Your task to perform on an android device: What's the weather going to be this weekend? Image 0: 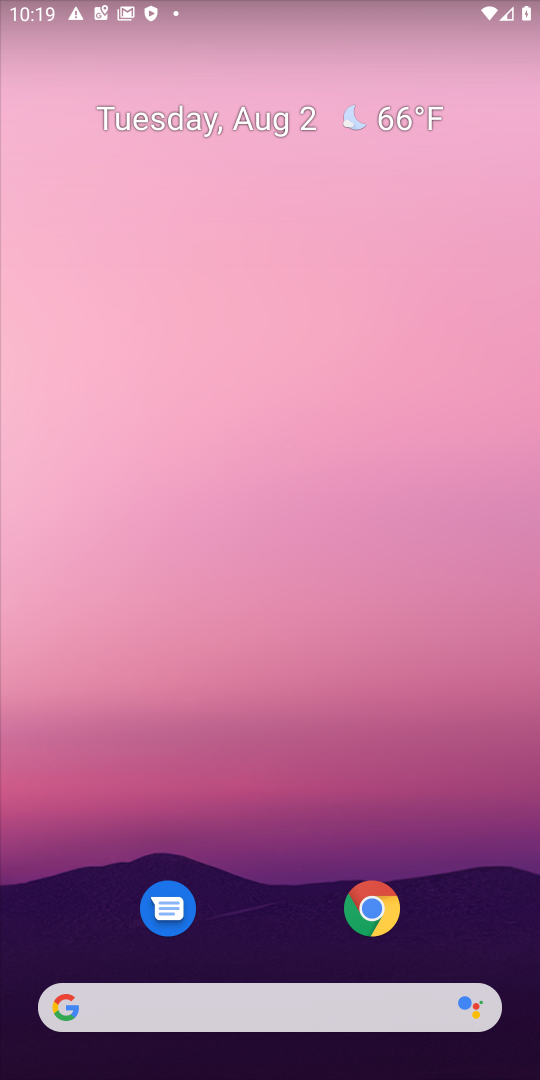
Step 0: click (320, 998)
Your task to perform on an android device: What's the weather going to be this weekend? Image 1: 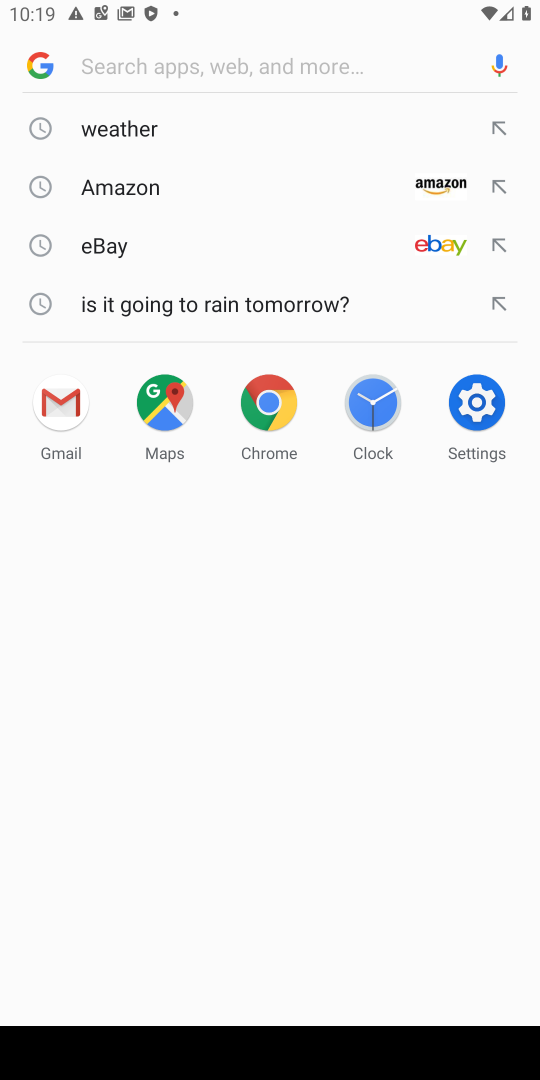
Step 1: click (68, 118)
Your task to perform on an android device: What's the weather going to be this weekend? Image 2: 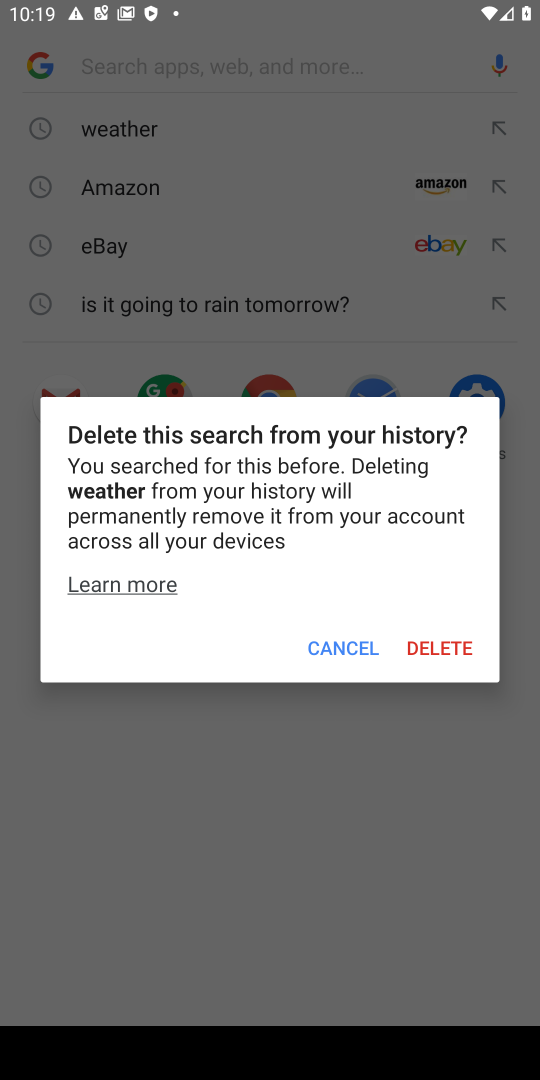
Step 2: click (419, 641)
Your task to perform on an android device: What's the weather going to be this weekend? Image 3: 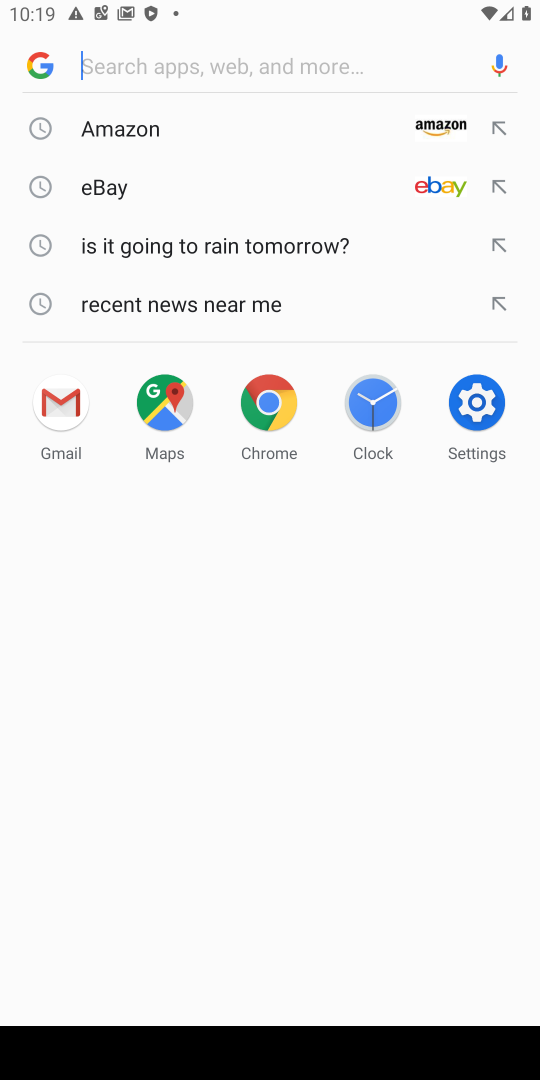
Step 3: click (150, 54)
Your task to perform on an android device: What's the weather going to be this weekend? Image 4: 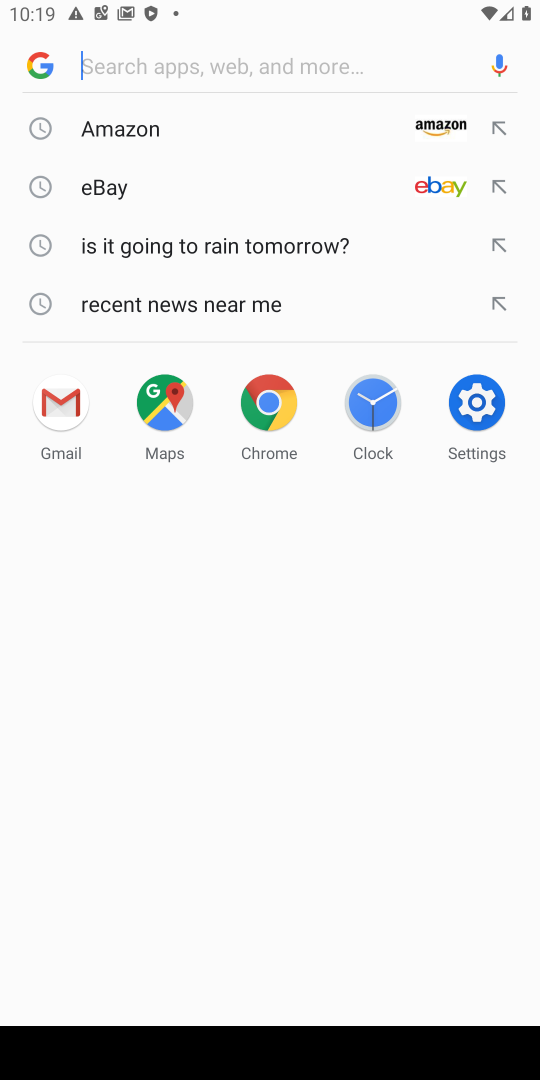
Step 4: type " weather"
Your task to perform on an android device: What's the weather going to be this weekend? Image 5: 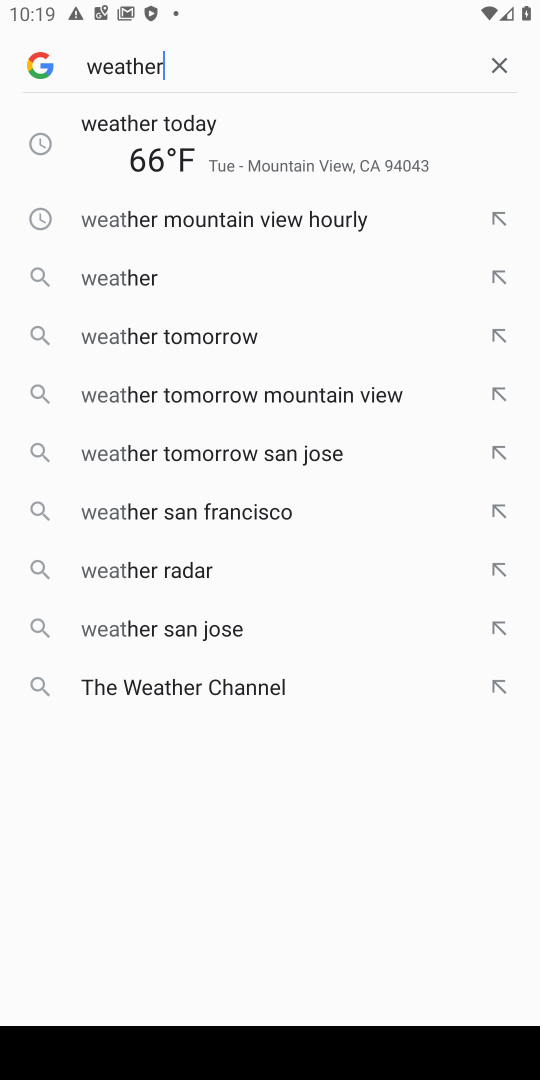
Step 5: type ""
Your task to perform on an android device: What's the weather going to be this weekend? Image 6: 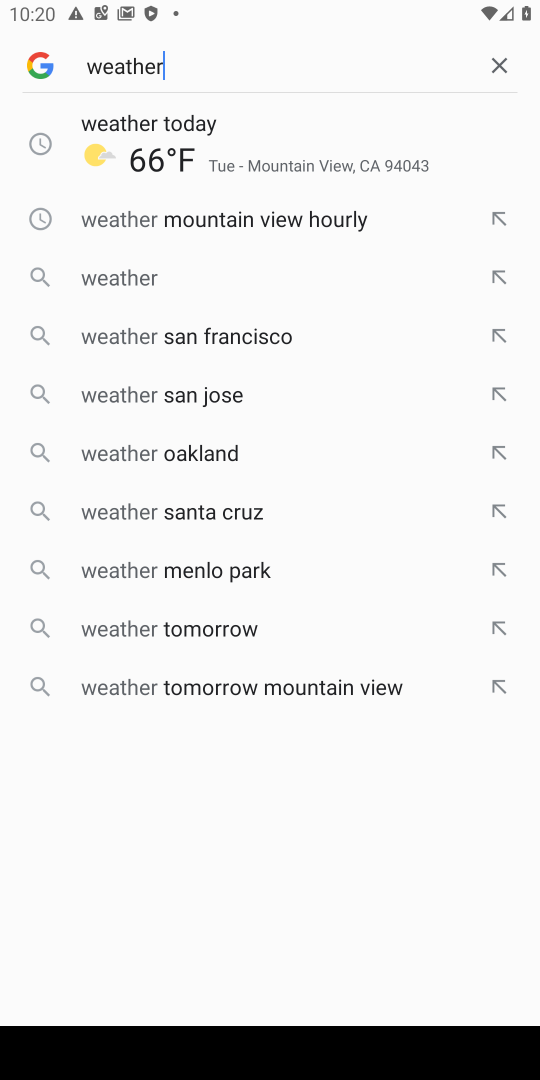
Step 6: click (209, 124)
Your task to perform on an android device: What's the weather going to be this weekend? Image 7: 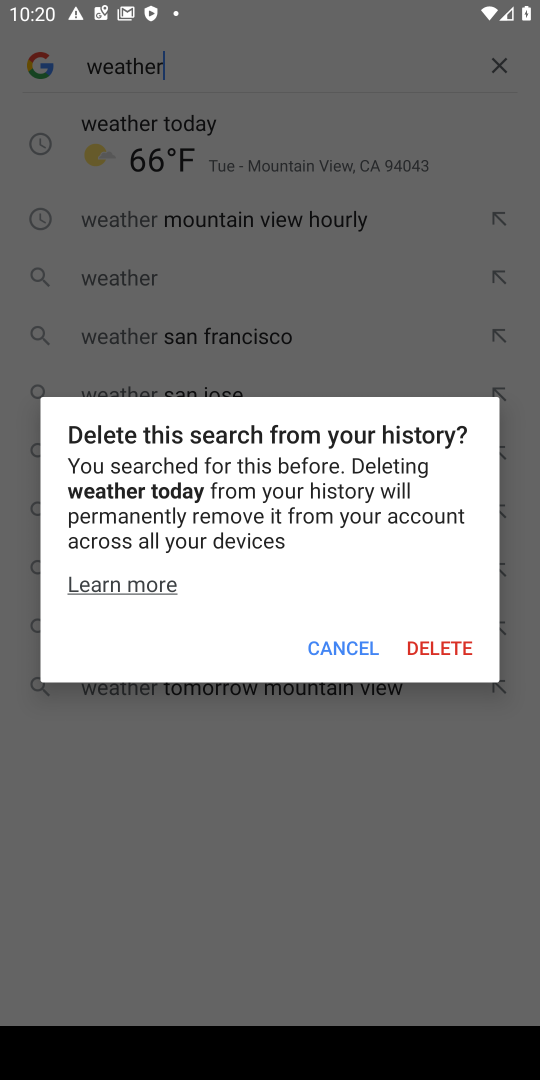
Step 7: click (336, 645)
Your task to perform on an android device: What's the weather going to be this weekend? Image 8: 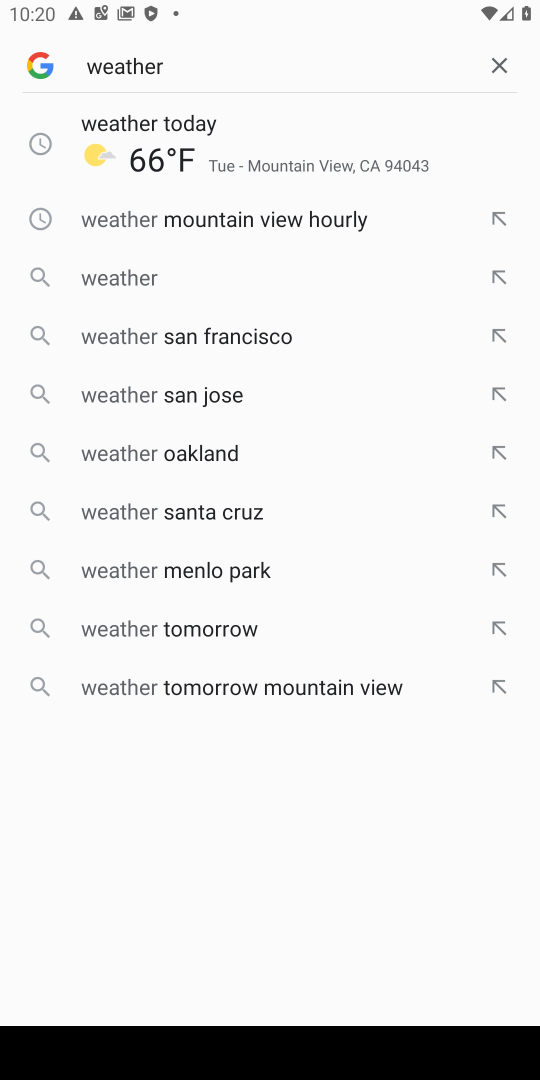
Step 8: click (129, 128)
Your task to perform on an android device: What's the weather going to be this weekend? Image 9: 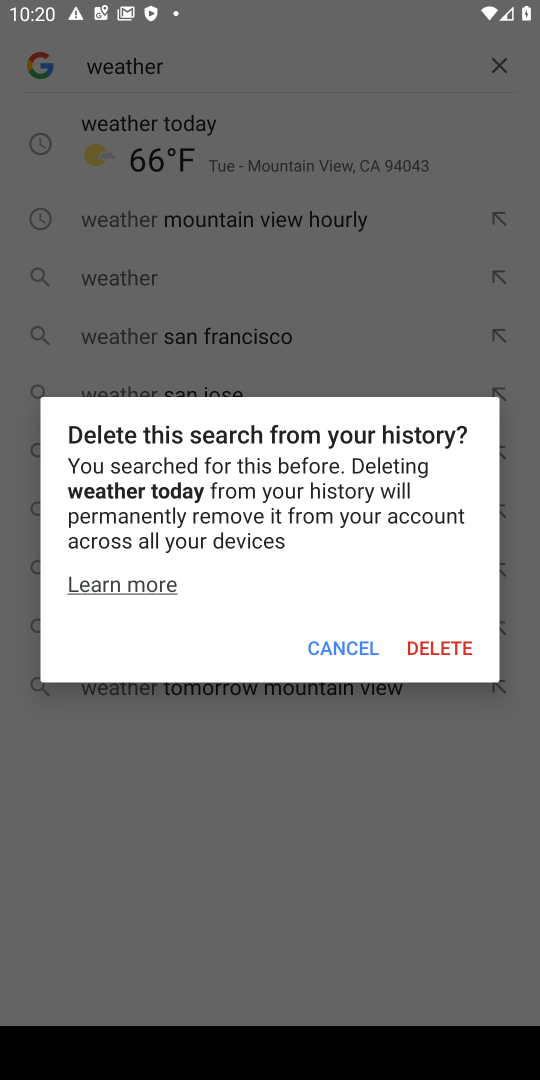
Step 9: click (349, 645)
Your task to perform on an android device: What's the weather going to be this weekend? Image 10: 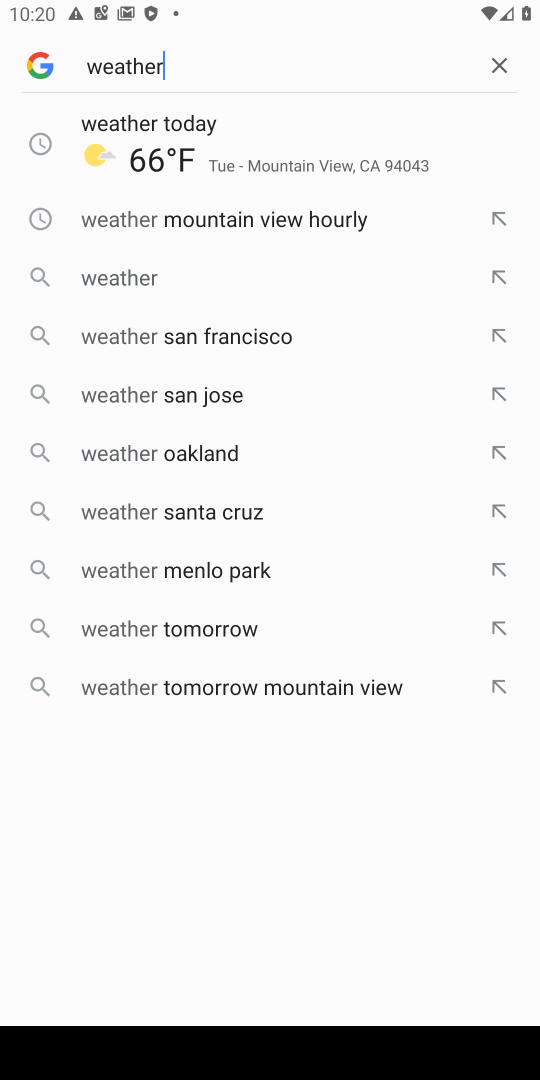
Step 10: click (321, 160)
Your task to perform on an android device: What's the weather going to be this weekend? Image 11: 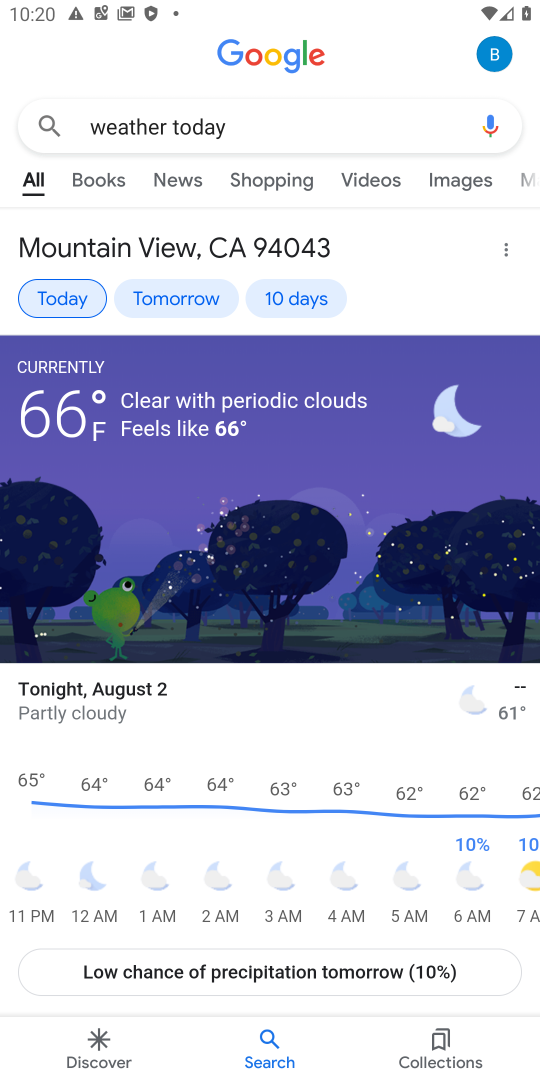
Step 11: click (286, 298)
Your task to perform on an android device: What's the weather going to be this weekend? Image 12: 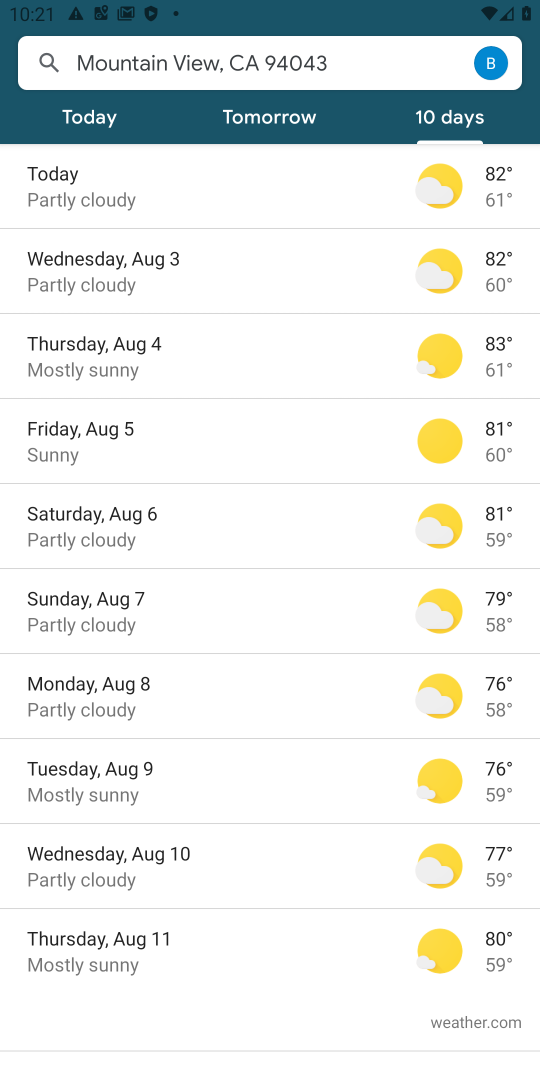
Step 12: task complete